Your task to perform on an android device: set the stopwatch Image 0: 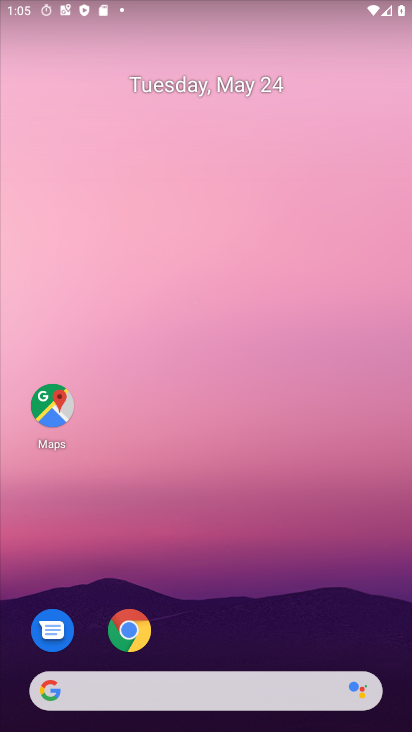
Step 0: drag from (263, 653) to (252, 15)
Your task to perform on an android device: set the stopwatch Image 1: 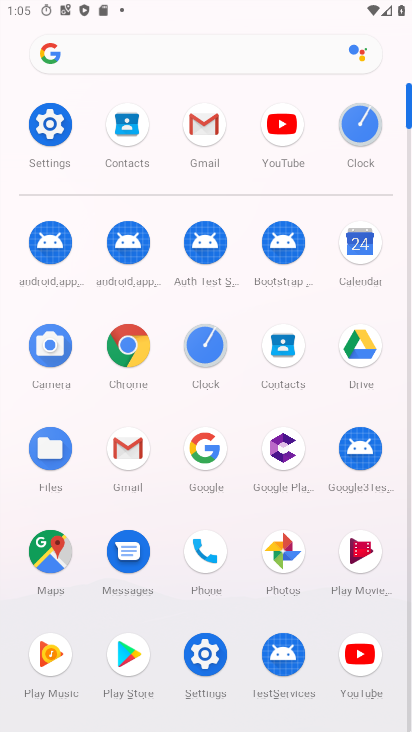
Step 1: click (366, 139)
Your task to perform on an android device: set the stopwatch Image 2: 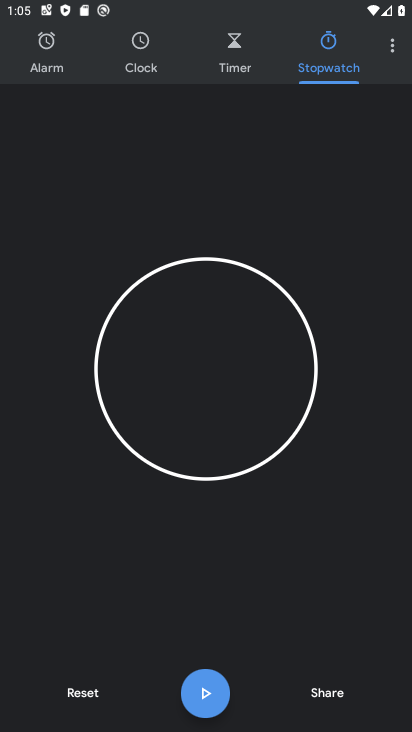
Step 2: click (72, 695)
Your task to perform on an android device: set the stopwatch Image 3: 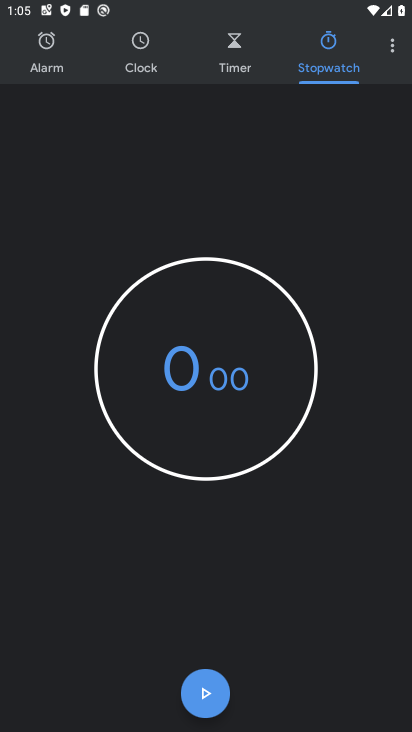
Step 3: click (215, 697)
Your task to perform on an android device: set the stopwatch Image 4: 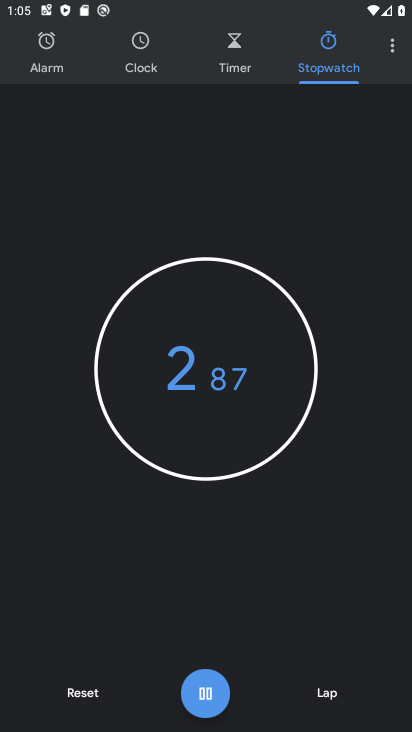
Step 4: click (211, 697)
Your task to perform on an android device: set the stopwatch Image 5: 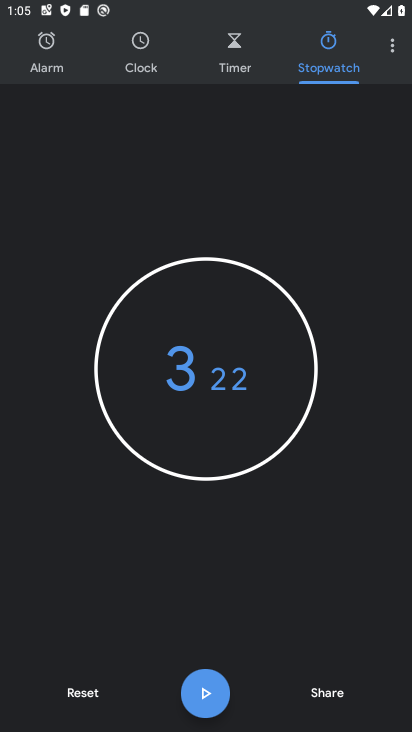
Step 5: task complete